Your task to perform on an android device: change the clock style Image 0: 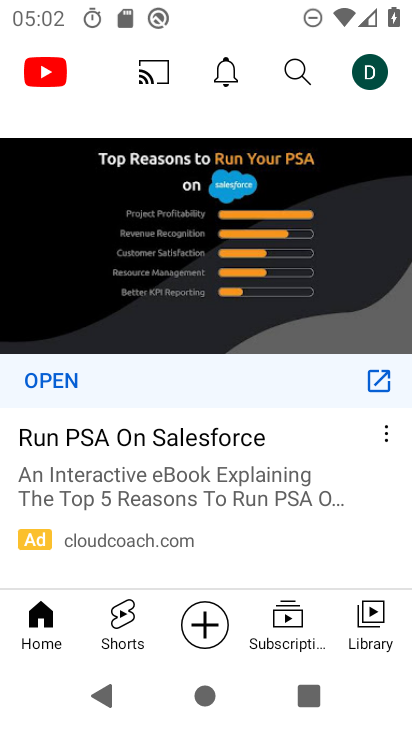
Step 0: press back button
Your task to perform on an android device: change the clock style Image 1: 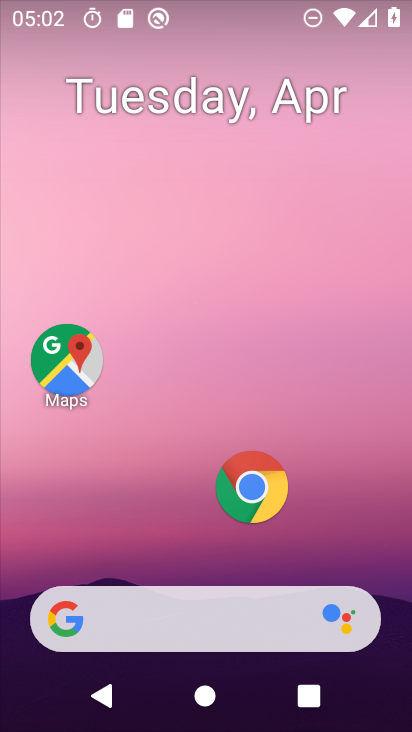
Step 1: drag from (155, 549) to (267, 11)
Your task to perform on an android device: change the clock style Image 2: 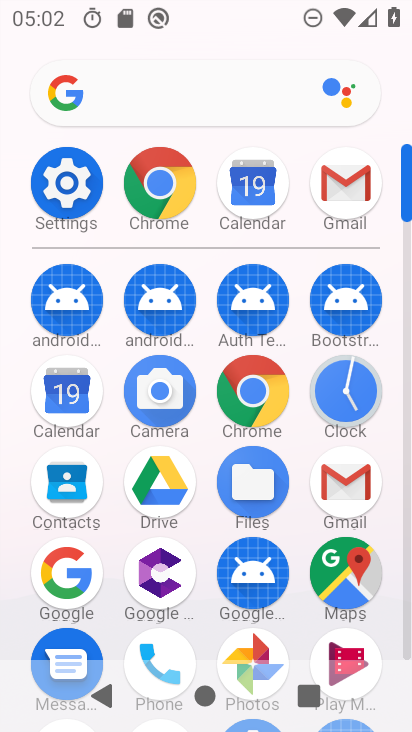
Step 2: click (348, 392)
Your task to perform on an android device: change the clock style Image 3: 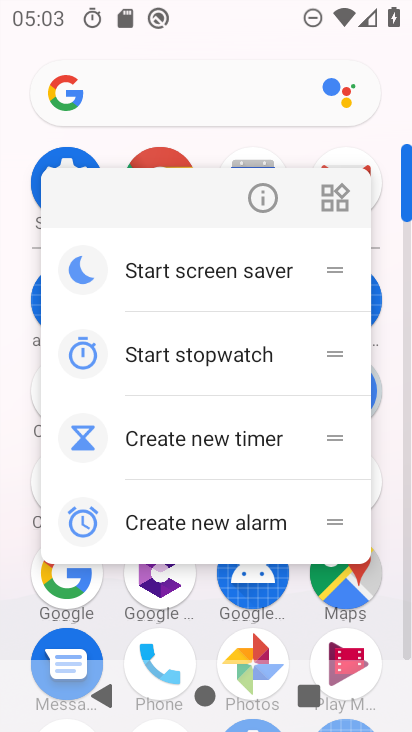
Step 3: click (376, 397)
Your task to perform on an android device: change the clock style Image 4: 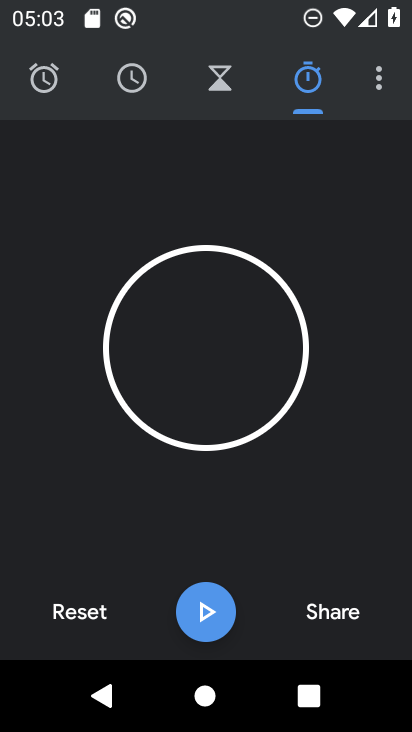
Step 4: click (376, 64)
Your task to perform on an android device: change the clock style Image 5: 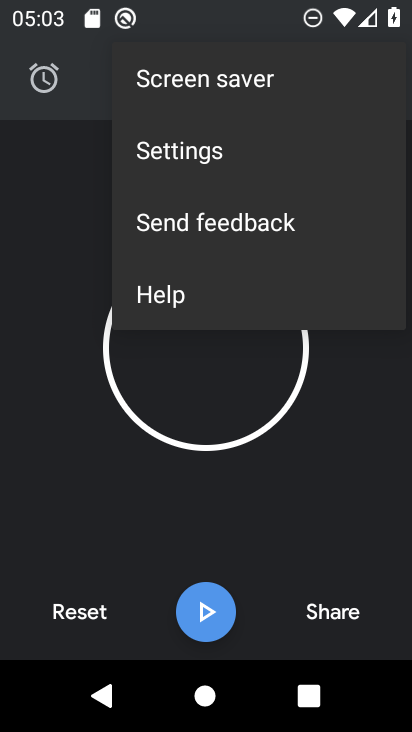
Step 5: click (167, 147)
Your task to perform on an android device: change the clock style Image 6: 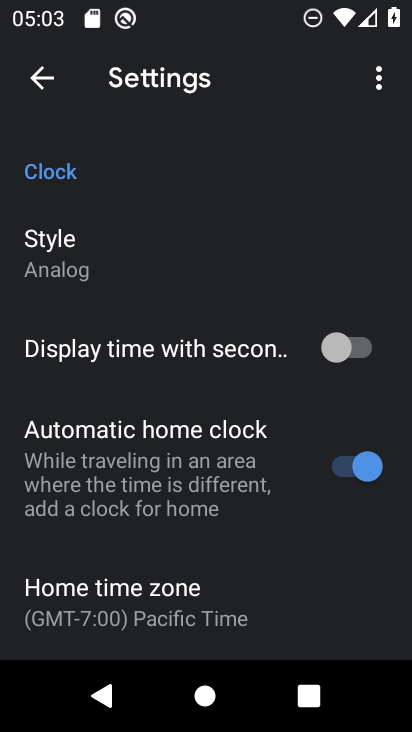
Step 6: click (122, 246)
Your task to perform on an android device: change the clock style Image 7: 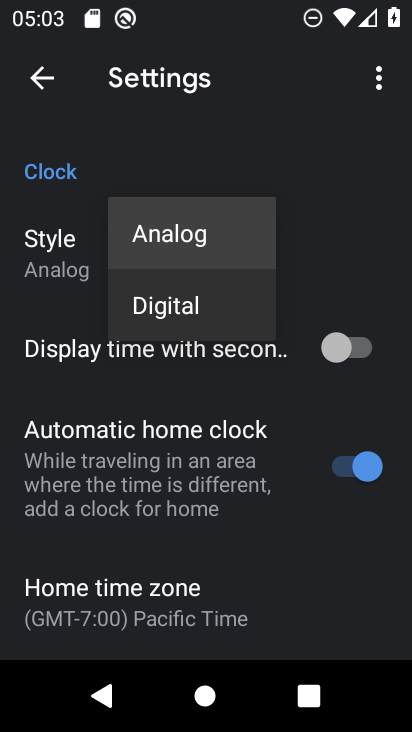
Step 7: click (181, 307)
Your task to perform on an android device: change the clock style Image 8: 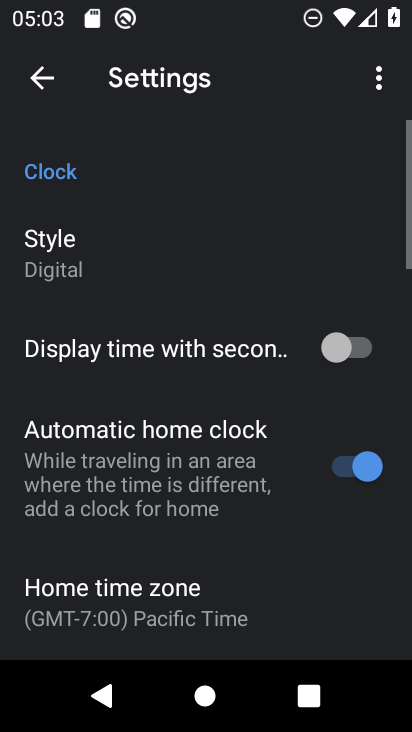
Step 8: task complete